Your task to perform on an android device: toggle pop-ups in chrome Image 0: 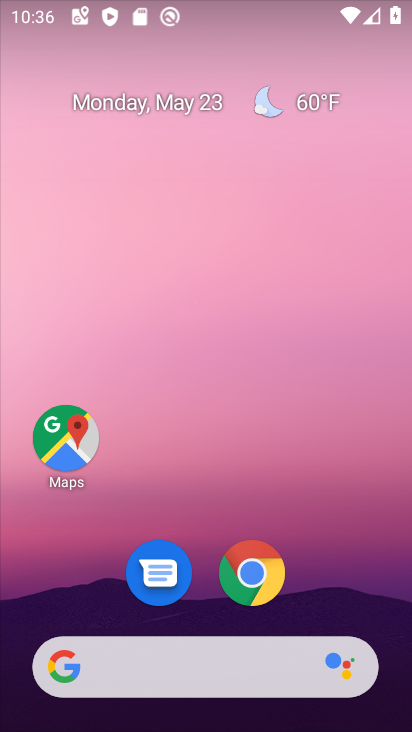
Step 0: drag from (322, 573) to (287, 8)
Your task to perform on an android device: toggle pop-ups in chrome Image 1: 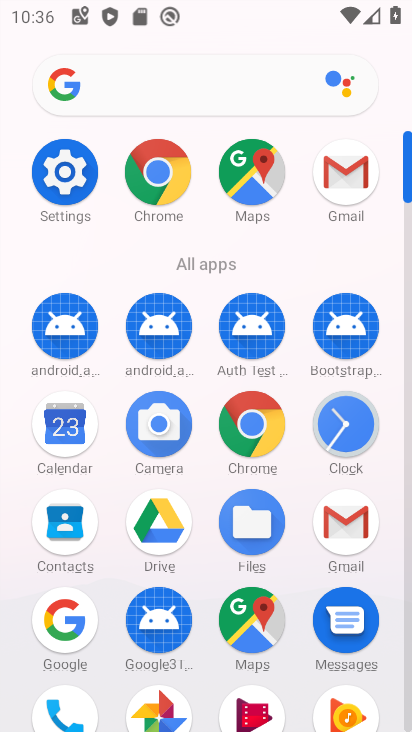
Step 1: click (248, 424)
Your task to perform on an android device: toggle pop-ups in chrome Image 2: 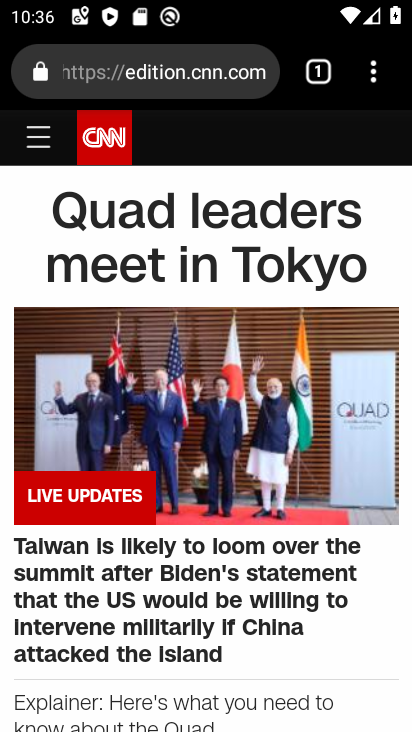
Step 2: drag from (376, 70) to (108, 567)
Your task to perform on an android device: toggle pop-ups in chrome Image 3: 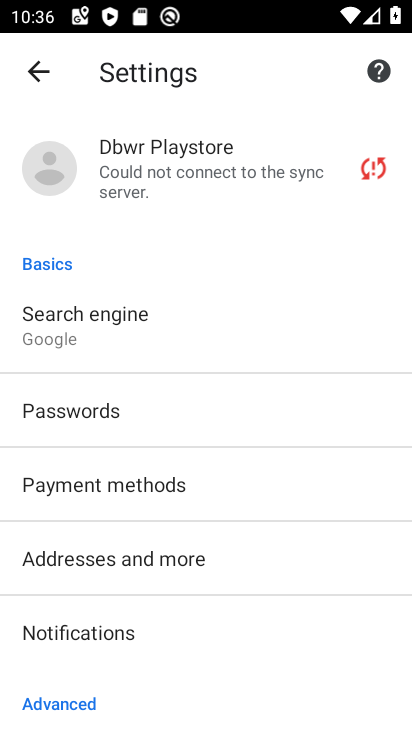
Step 3: drag from (212, 567) to (253, 202)
Your task to perform on an android device: toggle pop-ups in chrome Image 4: 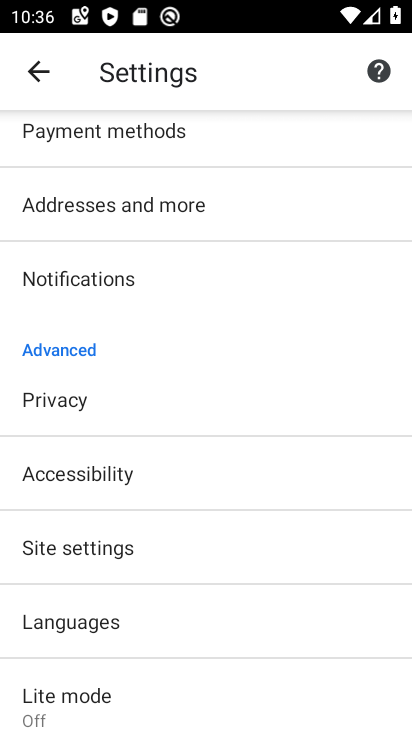
Step 4: drag from (141, 620) to (188, 233)
Your task to perform on an android device: toggle pop-ups in chrome Image 5: 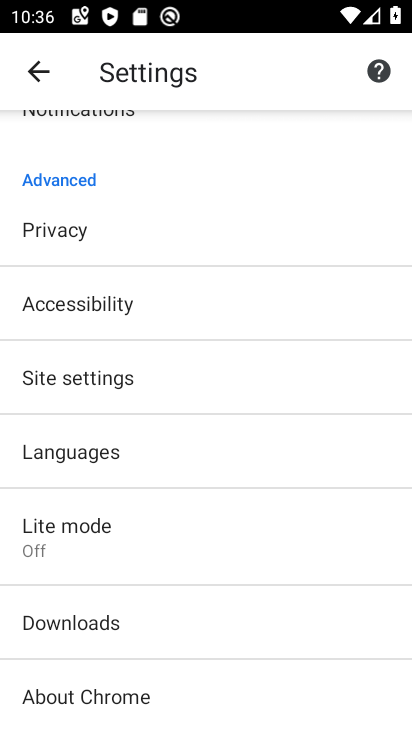
Step 5: drag from (126, 578) to (219, 176)
Your task to perform on an android device: toggle pop-ups in chrome Image 6: 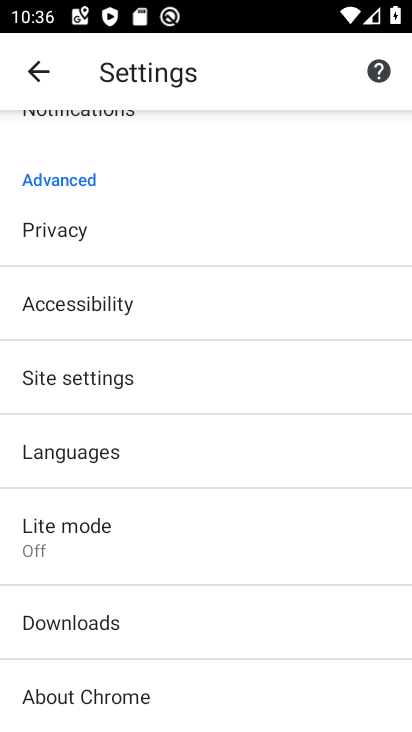
Step 6: click (132, 382)
Your task to perform on an android device: toggle pop-ups in chrome Image 7: 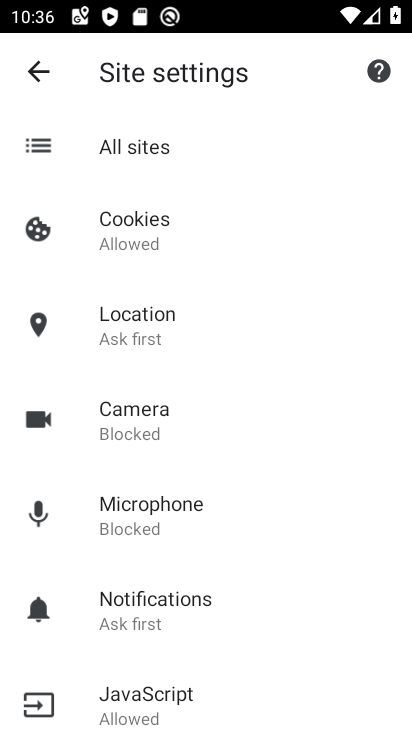
Step 7: drag from (188, 564) to (222, 165)
Your task to perform on an android device: toggle pop-ups in chrome Image 8: 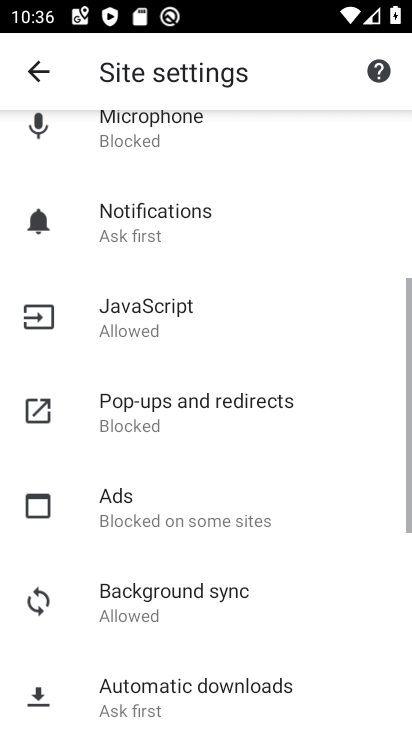
Step 8: click (178, 413)
Your task to perform on an android device: toggle pop-ups in chrome Image 9: 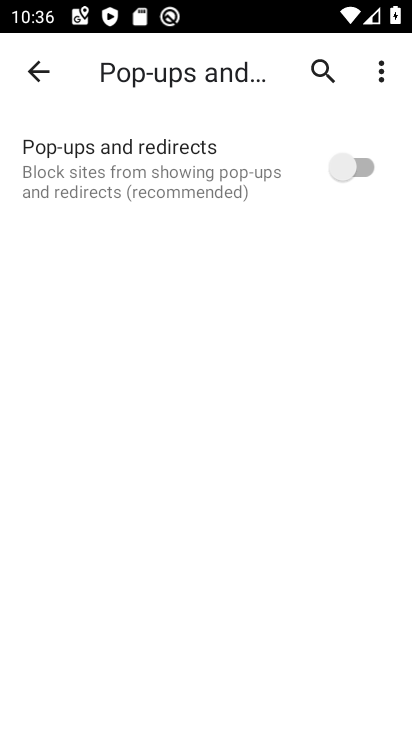
Step 9: click (362, 165)
Your task to perform on an android device: toggle pop-ups in chrome Image 10: 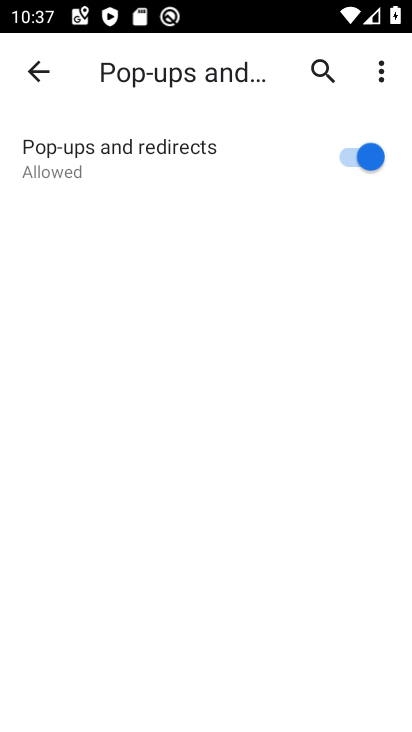
Step 10: task complete